Your task to perform on an android device: What's the news in Nepal? Image 0: 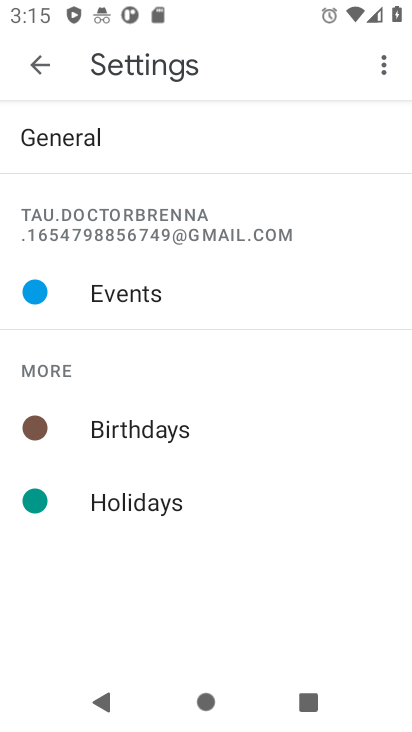
Step 0: press home button
Your task to perform on an android device: What's the news in Nepal? Image 1: 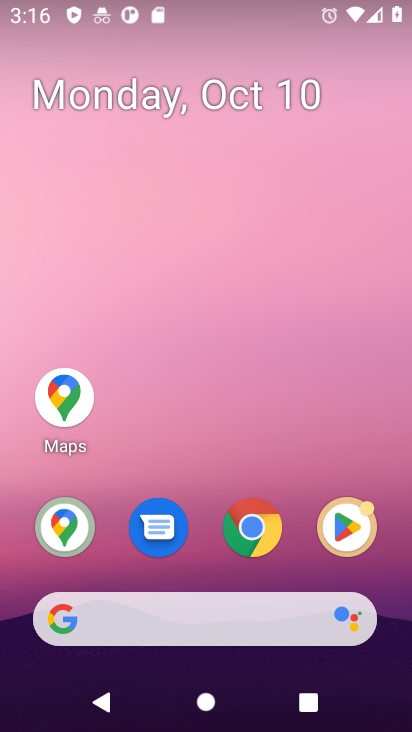
Step 1: click (250, 526)
Your task to perform on an android device: What's the news in Nepal? Image 2: 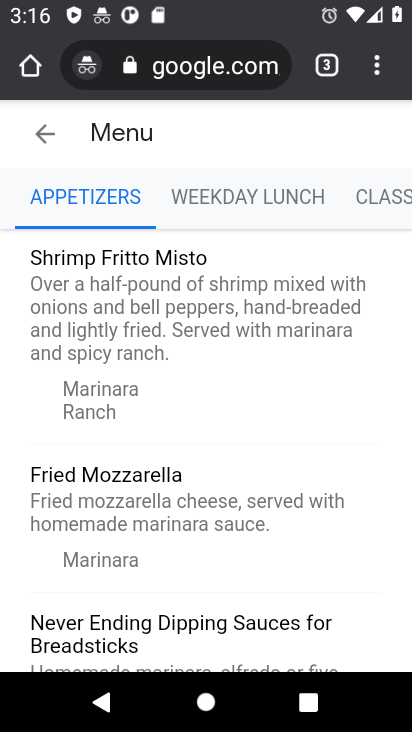
Step 2: click (226, 77)
Your task to perform on an android device: What's the news in Nepal? Image 3: 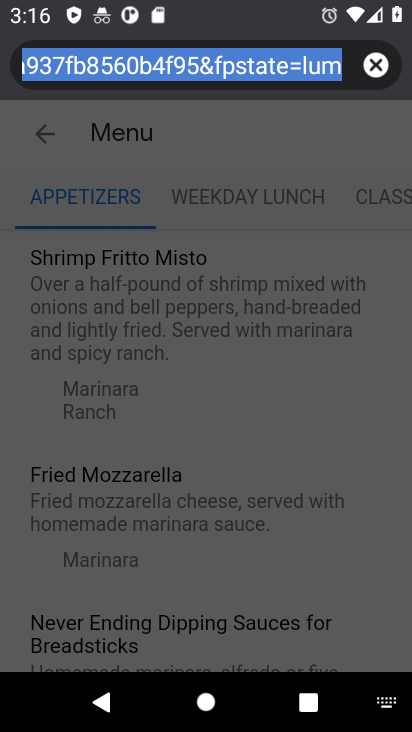
Step 3: click (377, 62)
Your task to perform on an android device: What's the news in Nepal? Image 4: 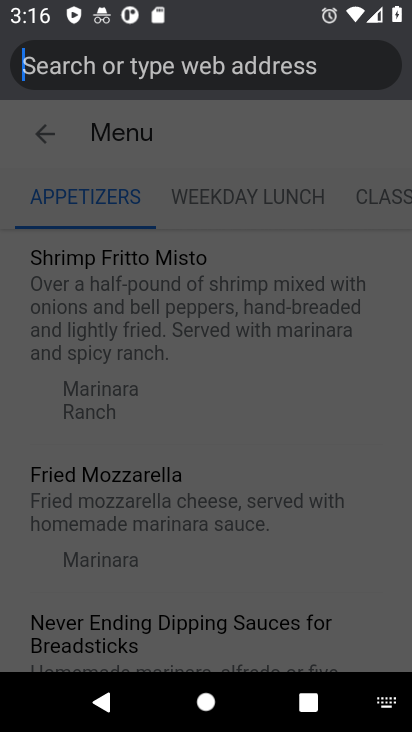
Step 4: type "What's the news in Nepal"
Your task to perform on an android device: What's the news in Nepal? Image 5: 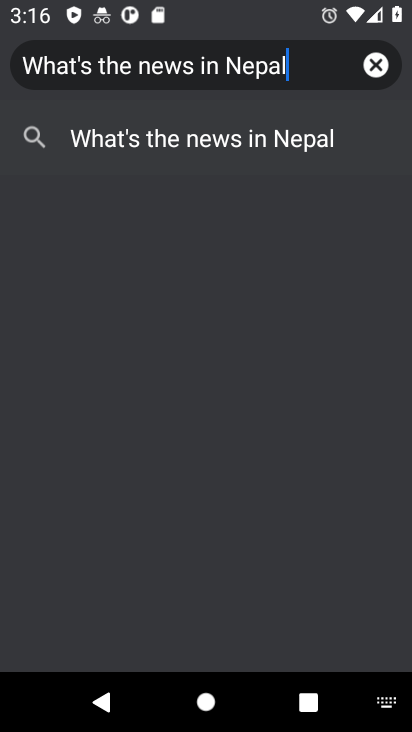
Step 5: click (248, 140)
Your task to perform on an android device: What's the news in Nepal? Image 6: 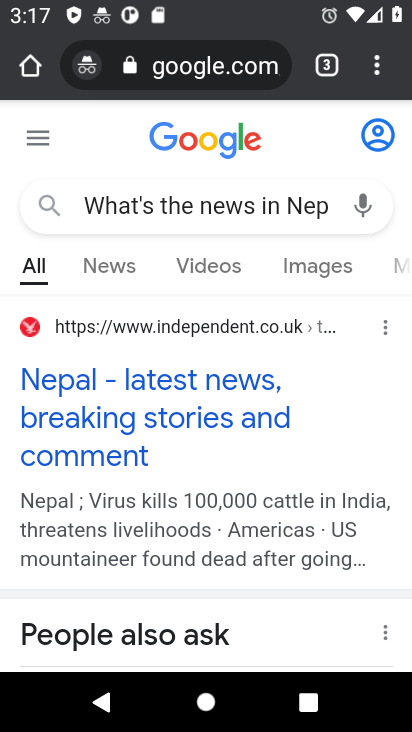
Step 6: click (241, 408)
Your task to perform on an android device: What's the news in Nepal? Image 7: 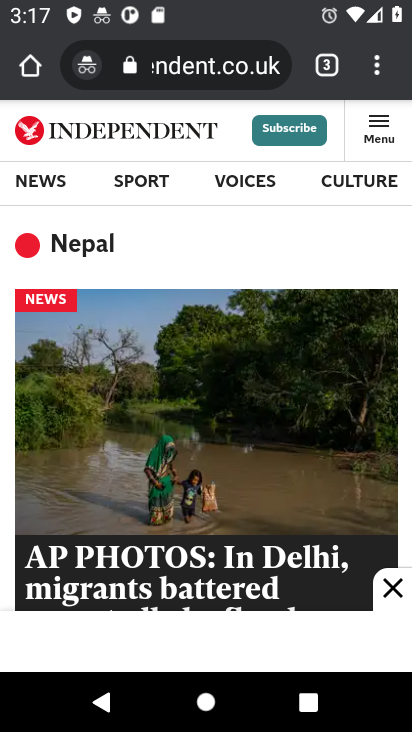
Step 7: task complete